Your task to perform on an android device: toggle improve location accuracy Image 0: 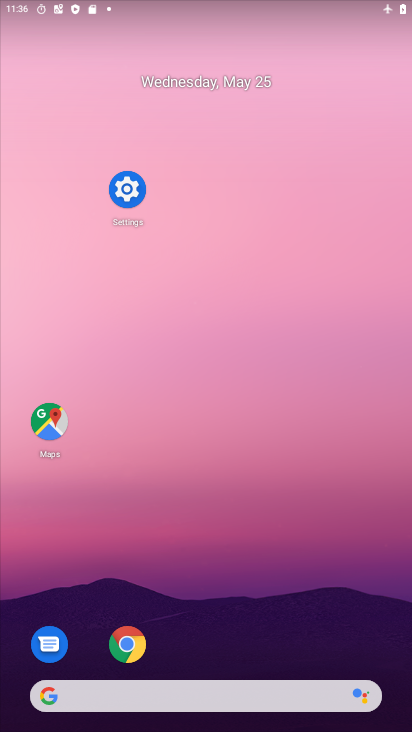
Step 0: drag from (238, 602) to (284, 49)
Your task to perform on an android device: toggle improve location accuracy Image 1: 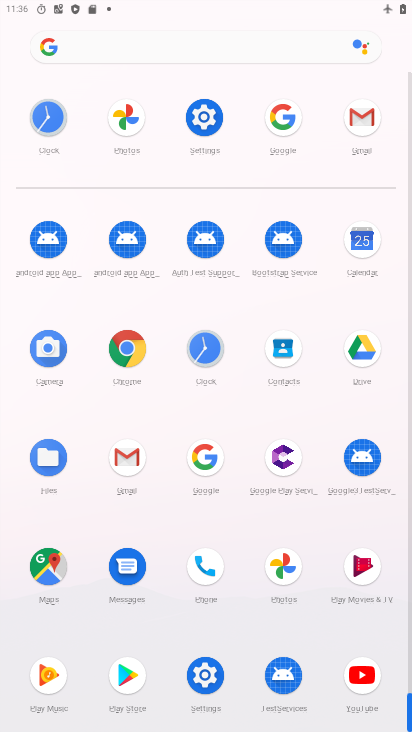
Step 1: click (205, 131)
Your task to perform on an android device: toggle improve location accuracy Image 2: 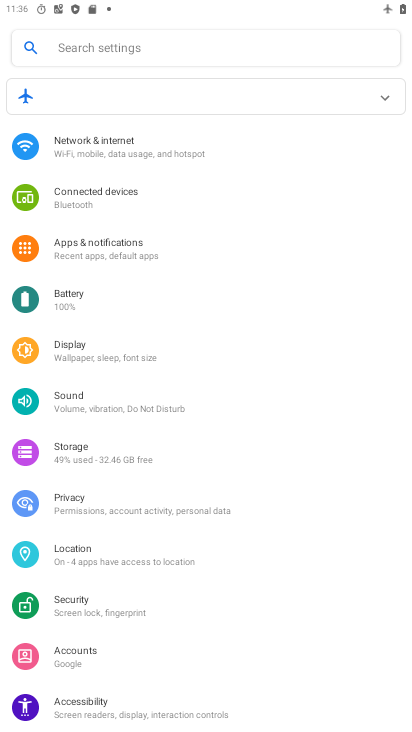
Step 2: click (113, 565)
Your task to perform on an android device: toggle improve location accuracy Image 3: 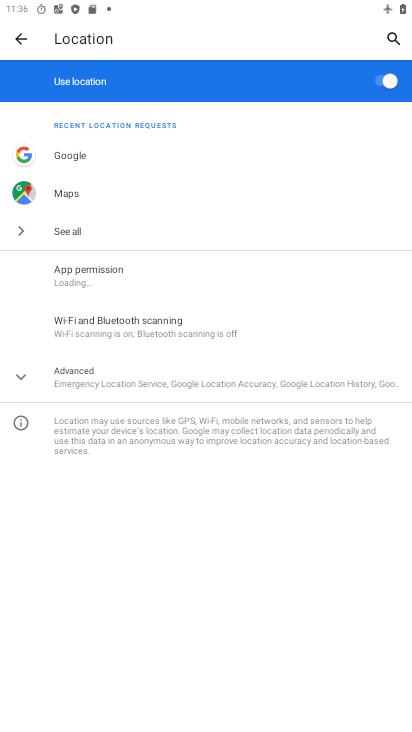
Step 3: click (123, 369)
Your task to perform on an android device: toggle improve location accuracy Image 4: 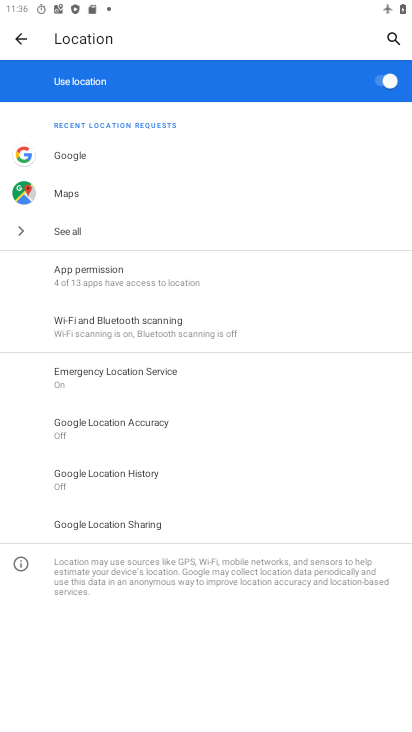
Step 4: click (102, 427)
Your task to perform on an android device: toggle improve location accuracy Image 5: 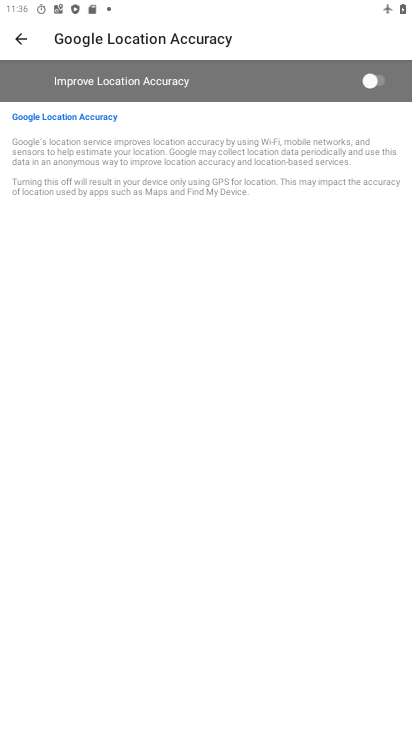
Step 5: click (370, 77)
Your task to perform on an android device: toggle improve location accuracy Image 6: 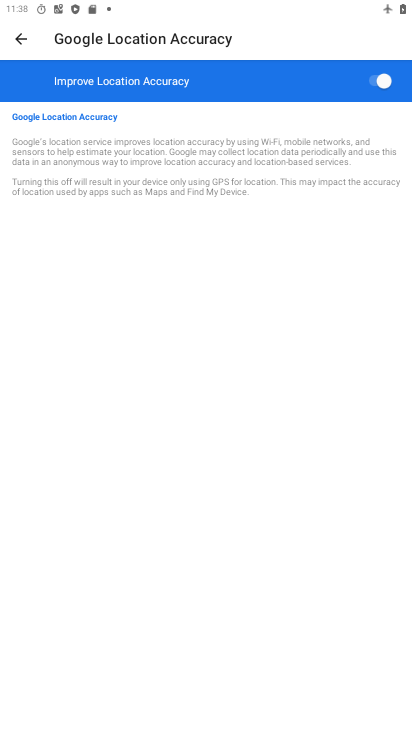
Step 6: task complete